Your task to perform on an android device: Show the shopping cart on ebay.com. Add logitech g502 to the cart on ebay.com Image 0: 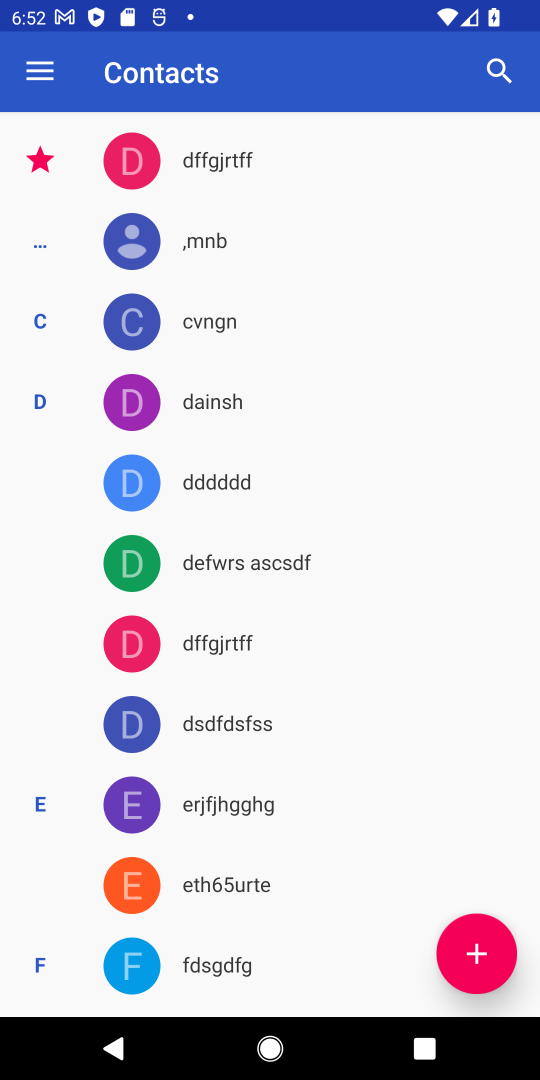
Step 0: press home button
Your task to perform on an android device: Show the shopping cart on ebay.com. Add logitech g502 to the cart on ebay.com Image 1: 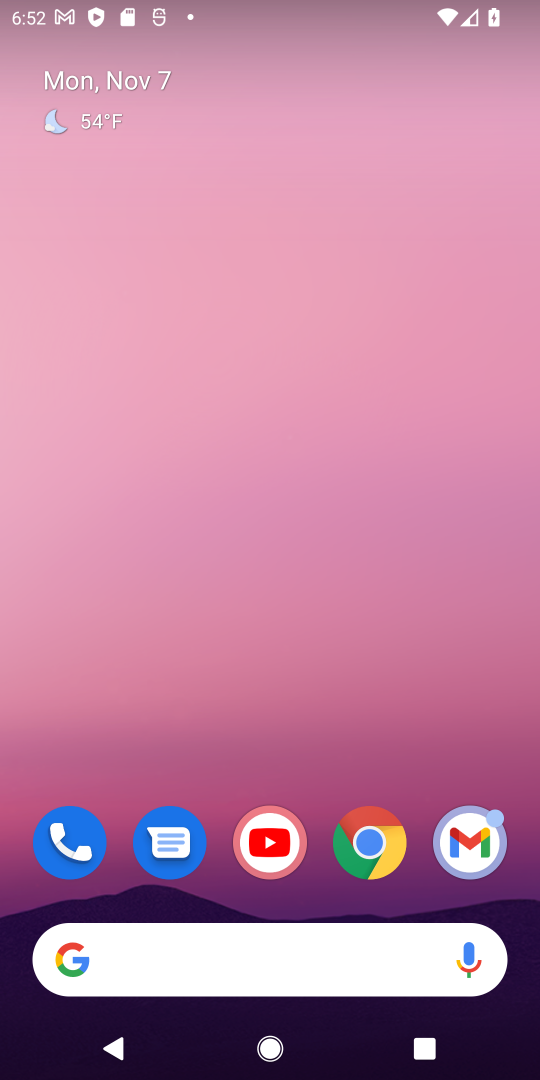
Step 1: click (375, 827)
Your task to perform on an android device: Show the shopping cart on ebay.com. Add logitech g502 to the cart on ebay.com Image 2: 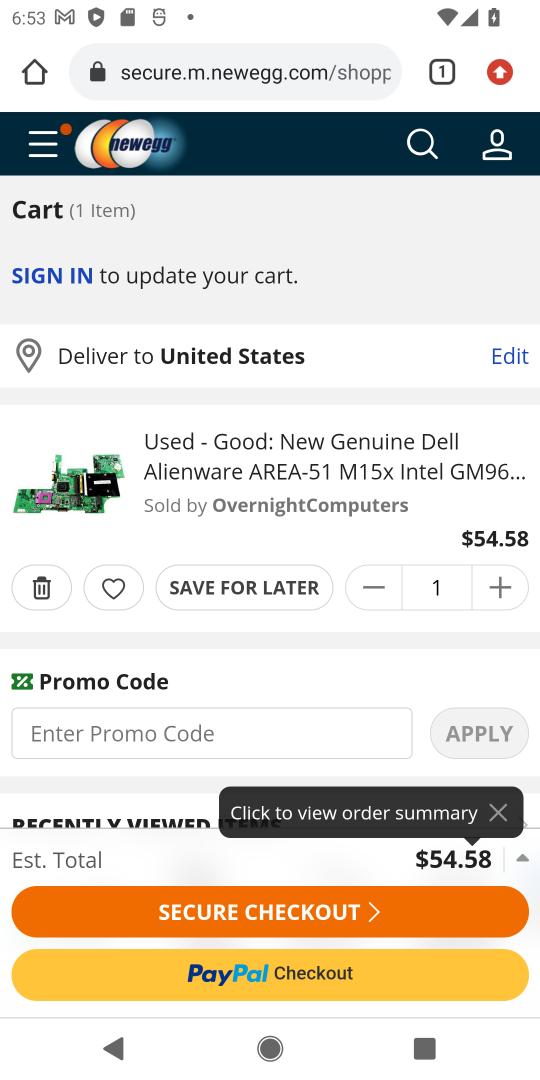
Step 2: click (268, 74)
Your task to perform on an android device: Show the shopping cart on ebay.com. Add logitech g502 to the cart on ebay.com Image 3: 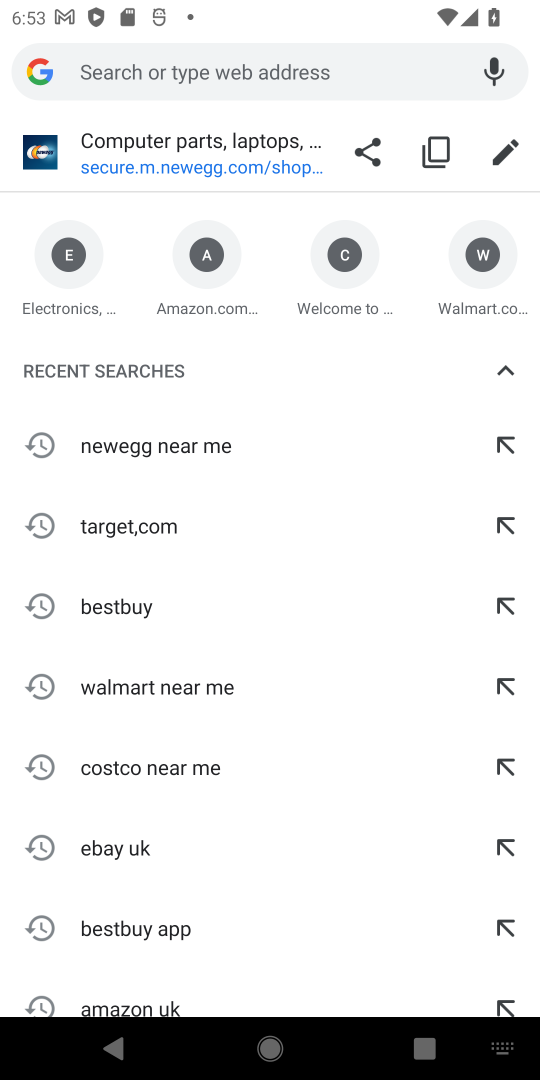
Step 3: drag from (397, 282) to (315, 258)
Your task to perform on an android device: Show the shopping cart on ebay.com. Add logitech g502 to the cart on ebay.com Image 4: 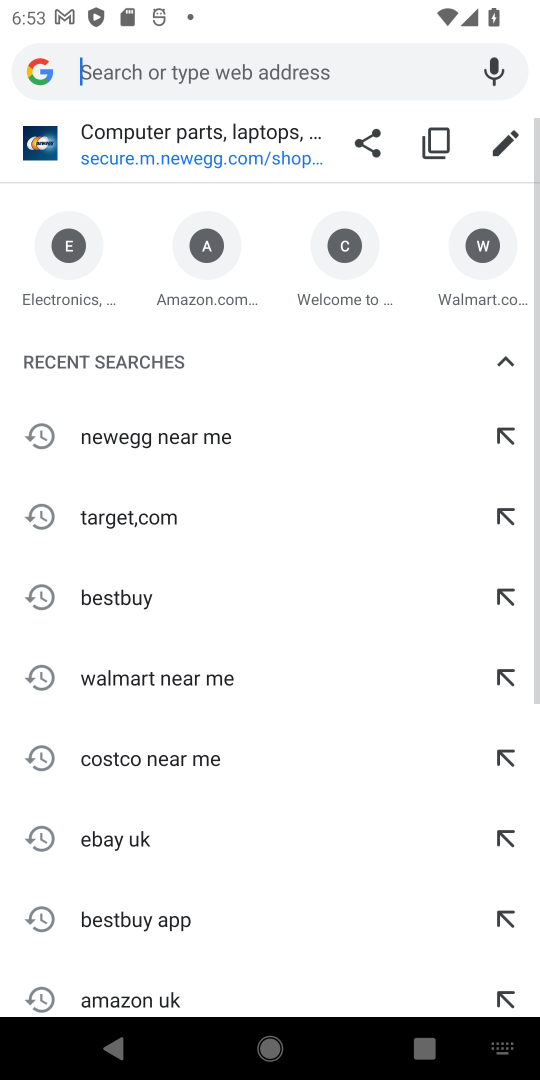
Step 4: click (50, 292)
Your task to perform on an android device: Show the shopping cart on ebay.com. Add logitech g502 to the cart on ebay.com Image 5: 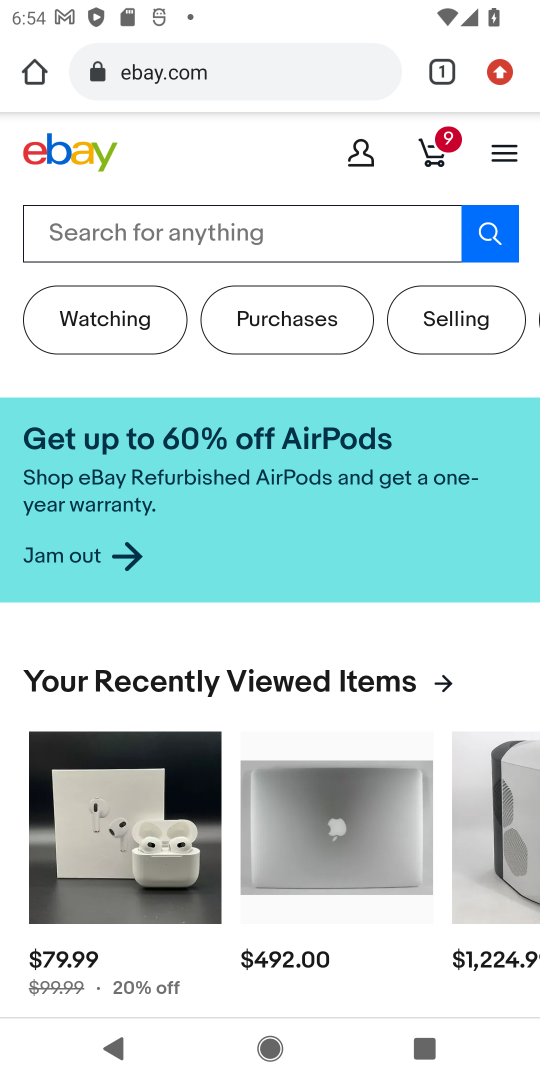
Step 5: click (276, 219)
Your task to perform on an android device: Show the shopping cart on ebay.com. Add logitech g502 to the cart on ebay.com Image 6: 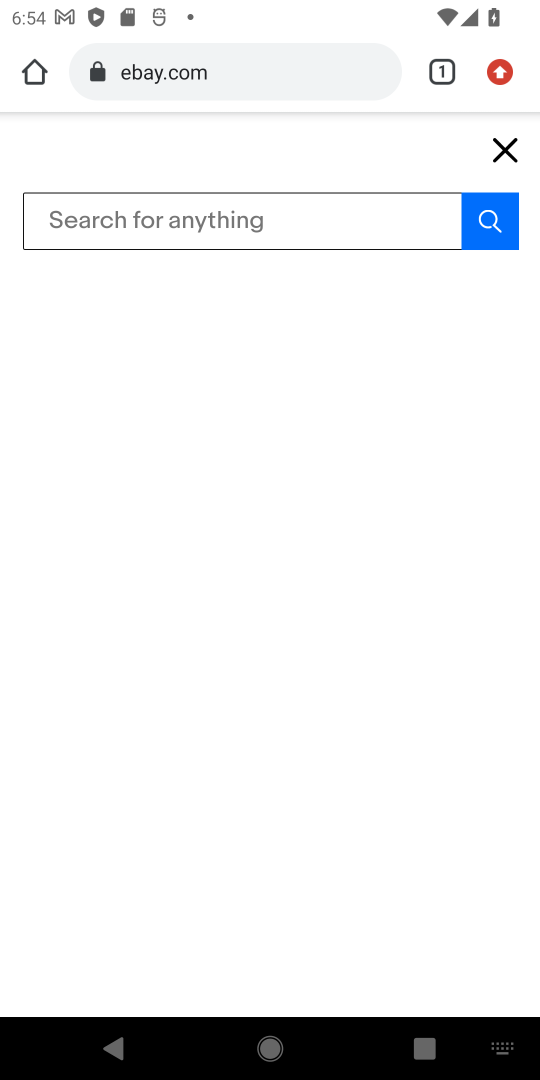
Step 6: type "logitech g502"
Your task to perform on an android device: Show the shopping cart on ebay.com. Add logitech g502 to the cart on ebay.com Image 7: 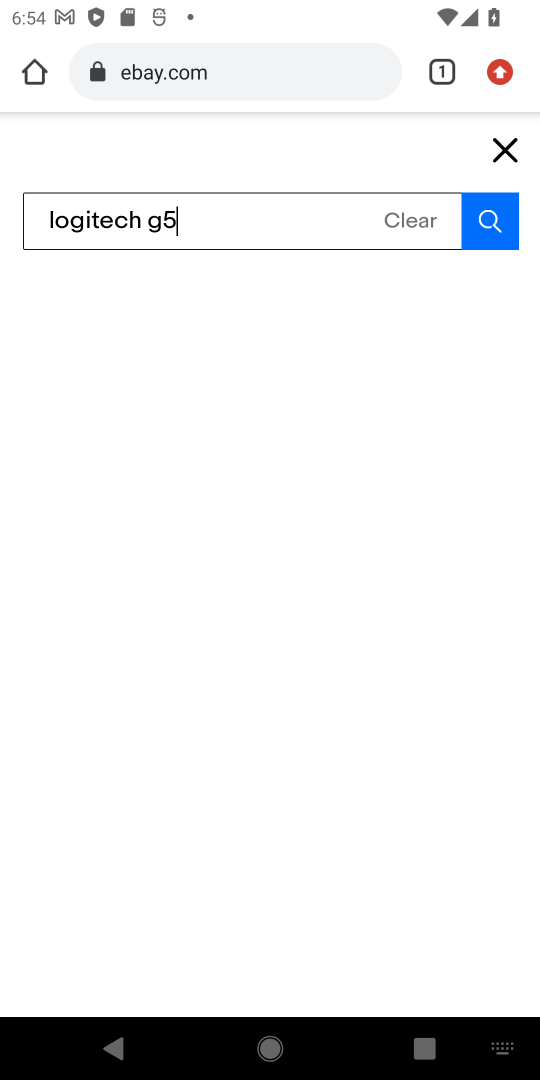
Step 7: press enter
Your task to perform on an android device: Show the shopping cart on ebay.com. Add logitech g502 to the cart on ebay.com Image 8: 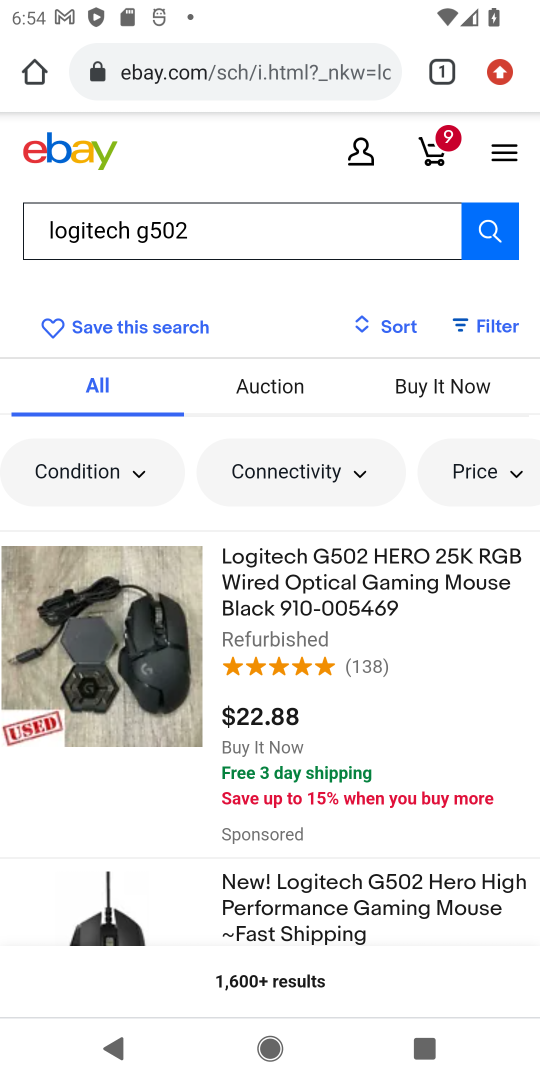
Step 8: click (350, 595)
Your task to perform on an android device: Show the shopping cart on ebay.com. Add logitech g502 to the cart on ebay.com Image 9: 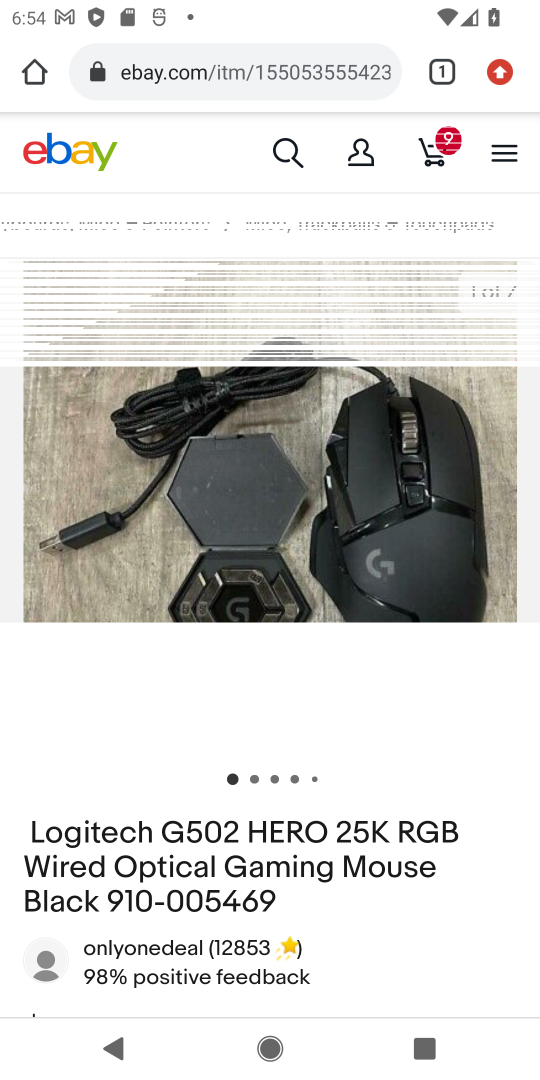
Step 9: drag from (259, 944) to (381, 130)
Your task to perform on an android device: Show the shopping cart on ebay.com. Add logitech g502 to the cart on ebay.com Image 10: 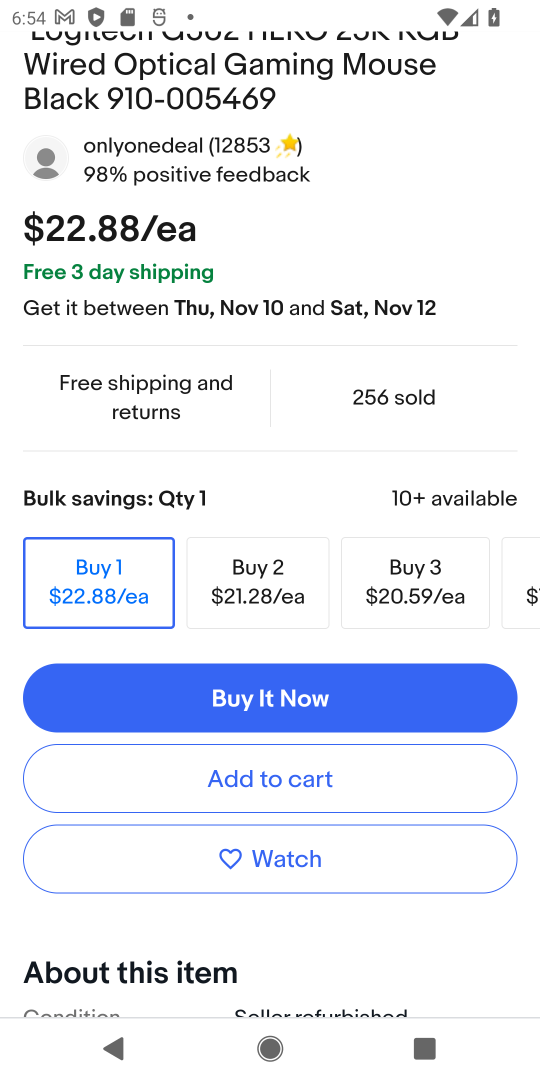
Step 10: click (273, 787)
Your task to perform on an android device: Show the shopping cart on ebay.com. Add logitech g502 to the cart on ebay.com Image 11: 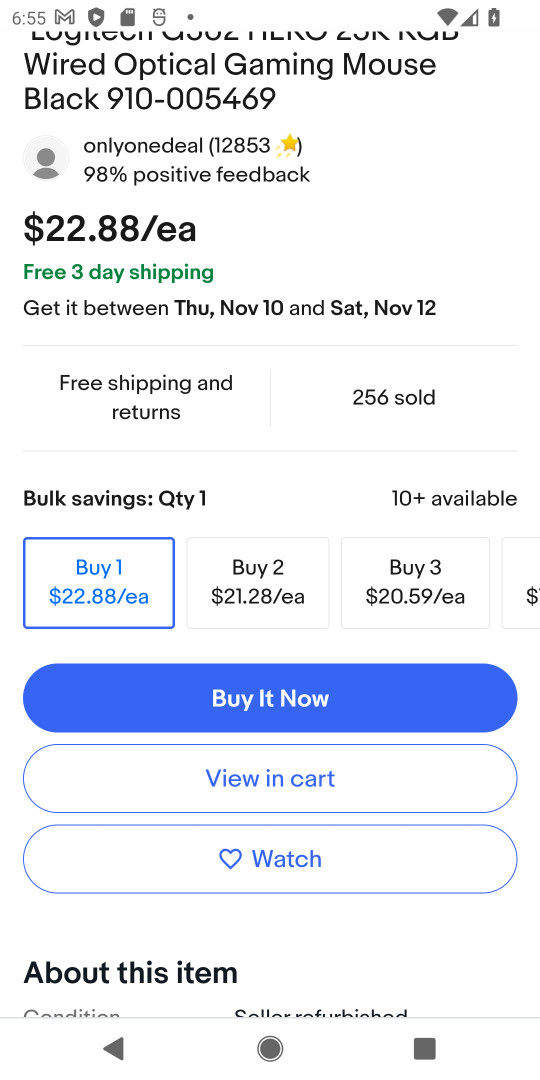
Step 11: click (258, 776)
Your task to perform on an android device: Show the shopping cart on ebay.com. Add logitech g502 to the cart on ebay.com Image 12: 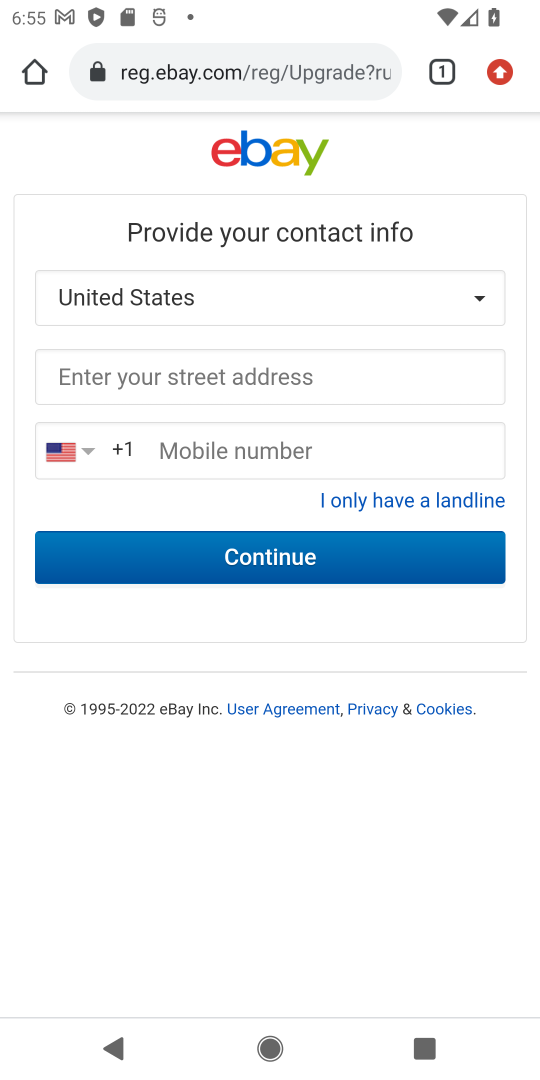
Step 12: task complete